Your task to perform on an android device: What's the weather going to be tomorrow? Image 0: 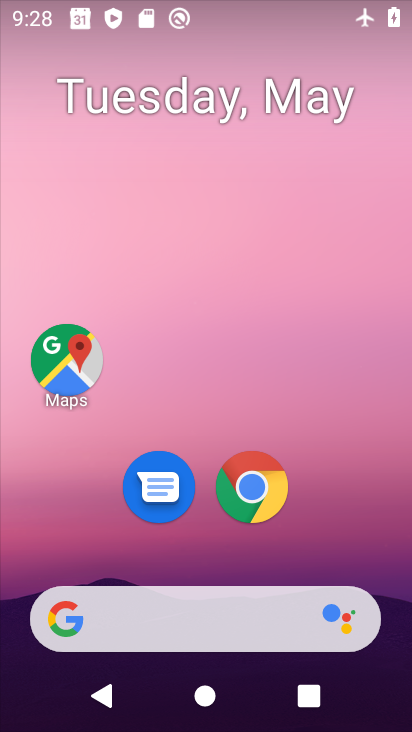
Step 0: drag from (197, 544) to (195, 57)
Your task to perform on an android device: What's the weather going to be tomorrow? Image 1: 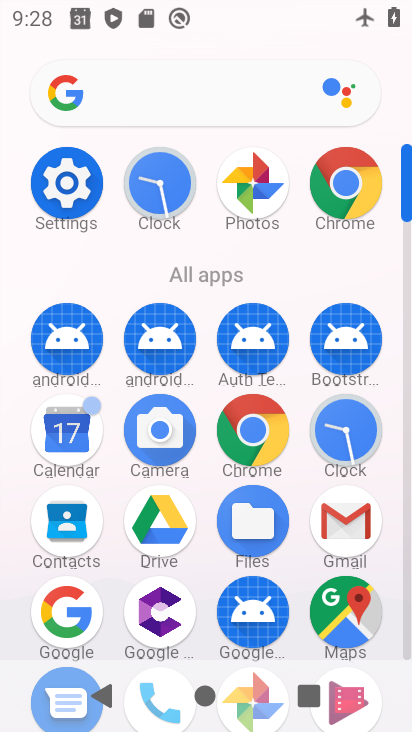
Step 1: click (196, 94)
Your task to perform on an android device: What's the weather going to be tomorrow? Image 2: 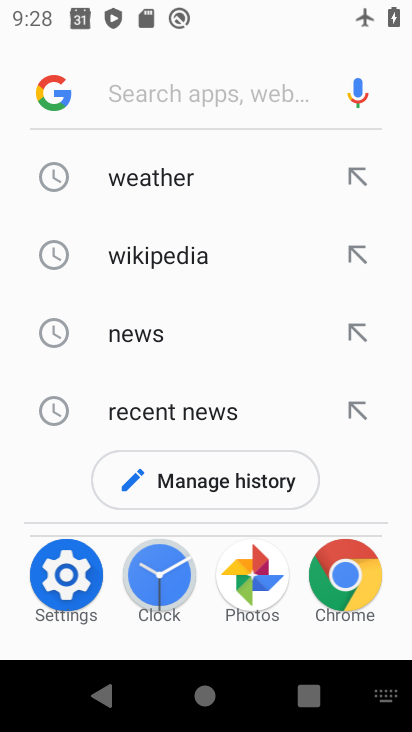
Step 2: click (169, 107)
Your task to perform on an android device: What's the weather going to be tomorrow? Image 3: 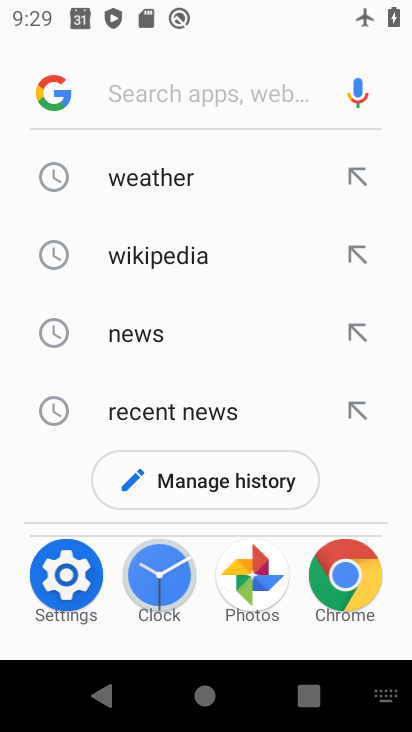
Step 3: type "weather going to be tomorrow"
Your task to perform on an android device: What's the weather going to be tomorrow? Image 4: 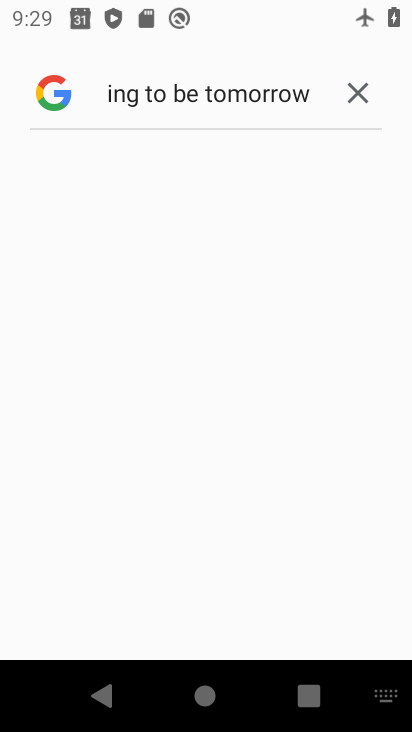
Step 4: click (64, 172)
Your task to perform on an android device: What's the weather going to be tomorrow? Image 5: 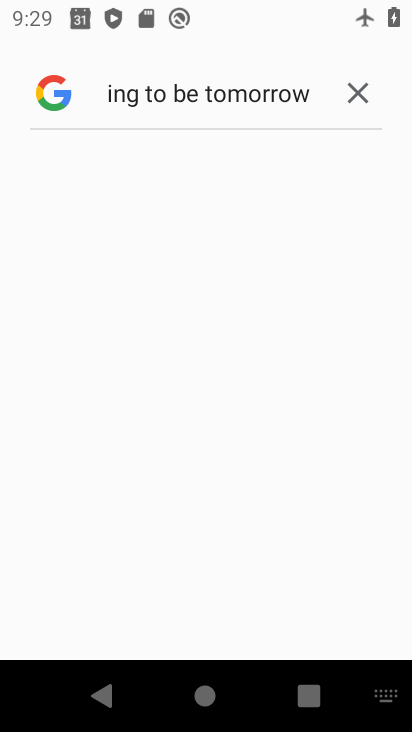
Step 5: task complete